Your task to perform on an android device: move an email to a new category in the gmail app Image 0: 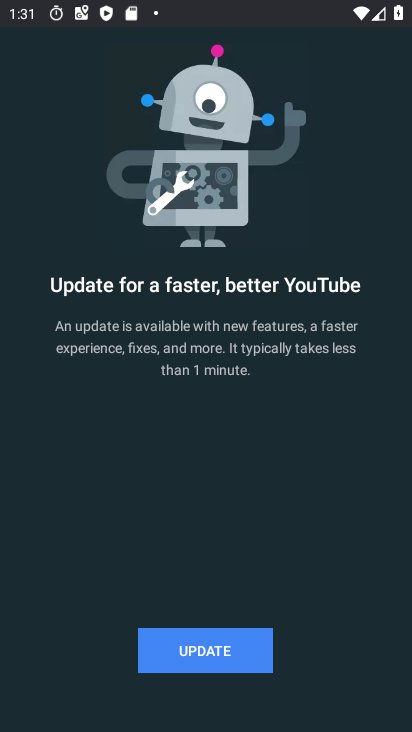
Step 0: press home button
Your task to perform on an android device: move an email to a new category in the gmail app Image 1: 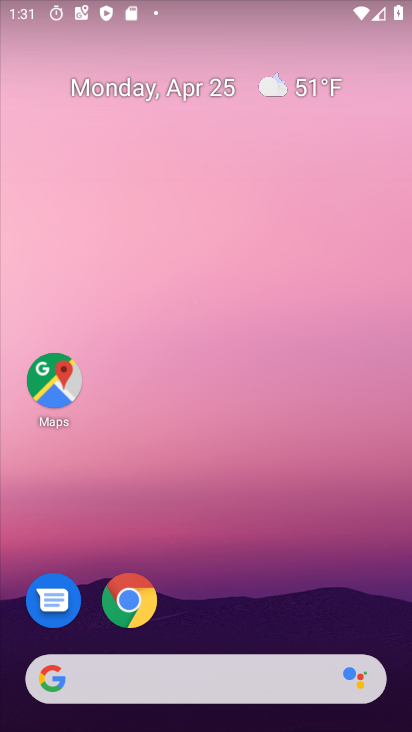
Step 1: drag from (166, 679) to (348, 35)
Your task to perform on an android device: move an email to a new category in the gmail app Image 2: 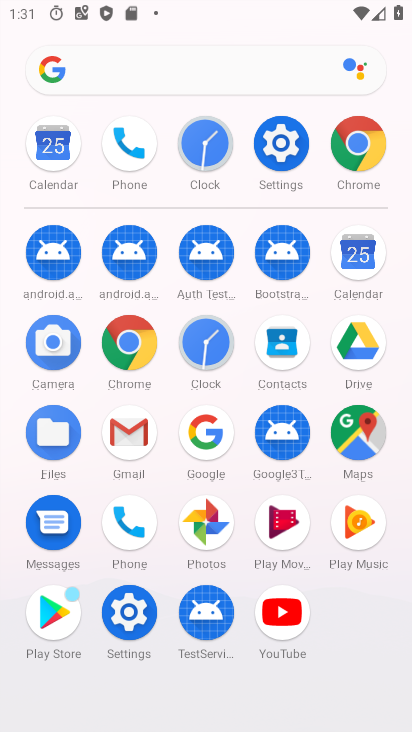
Step 2: click (130, 450)
Your task to perform on an android device: move an email to a new category in the gmail app Image 3: 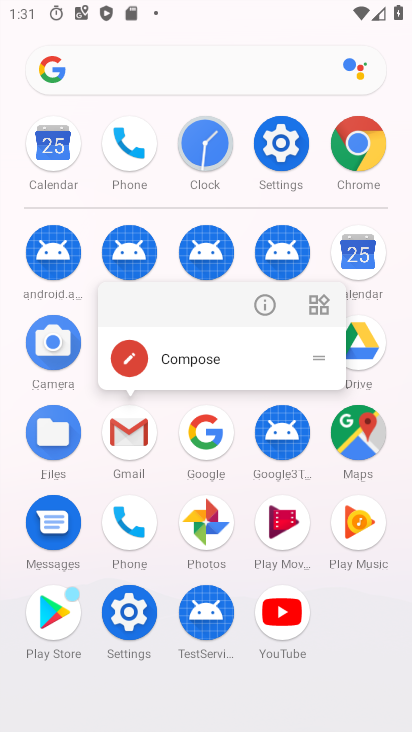
Step 3: click (133, 441)
Your task to perform on an android device: move an email to a new category in the gmail app Image 4: 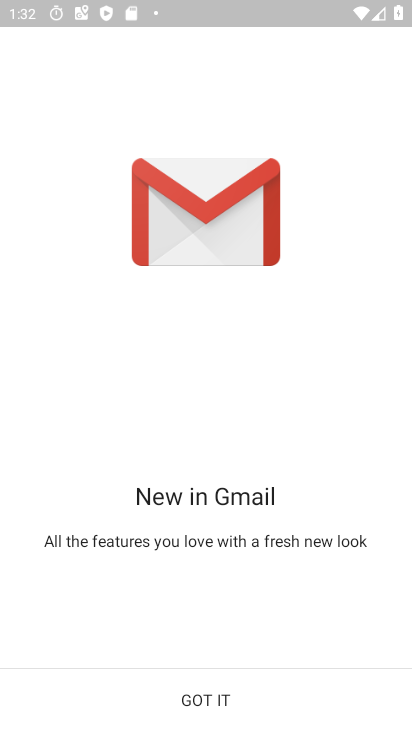
Step 4: click (205, 693)
Your task to perform on an android device: move an email to a new category in the gmail app Image 5: 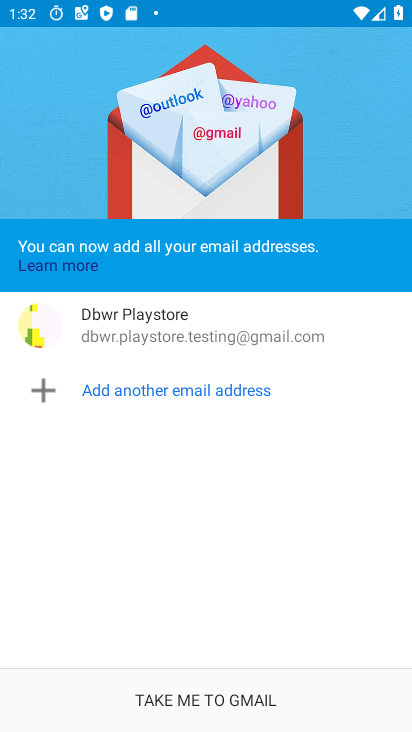
Step 5: click (205, 694)
Your task to perform on an android device: move an email to a new category in the gmail app Image 6: 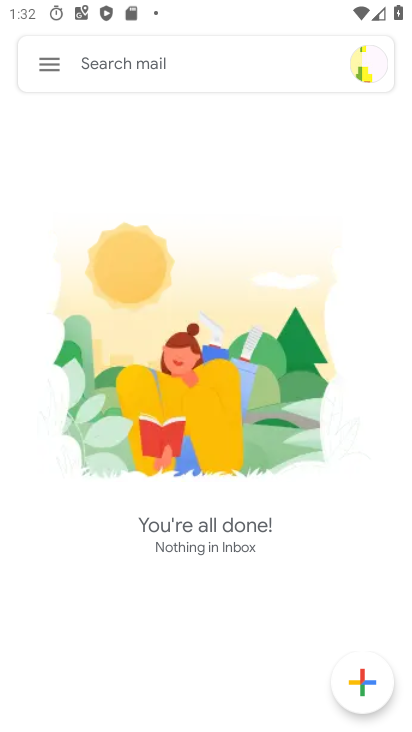
Step 6: task complete